Your task to perform on an android device: Go to wifi settings Image 0: 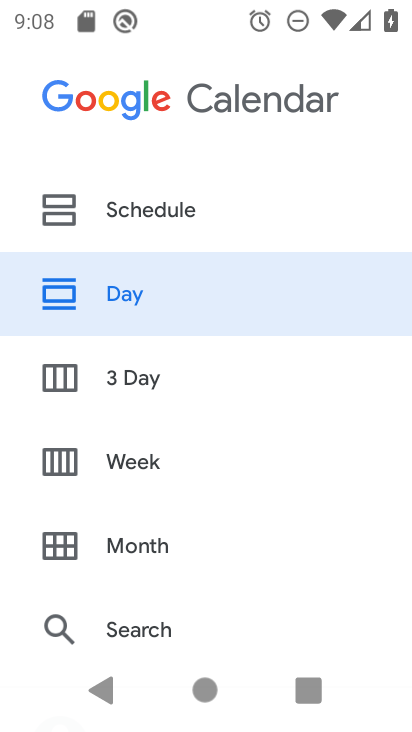
Step 0: press home button
Your task to perform on an android device: Go to wifi settings Image 1: 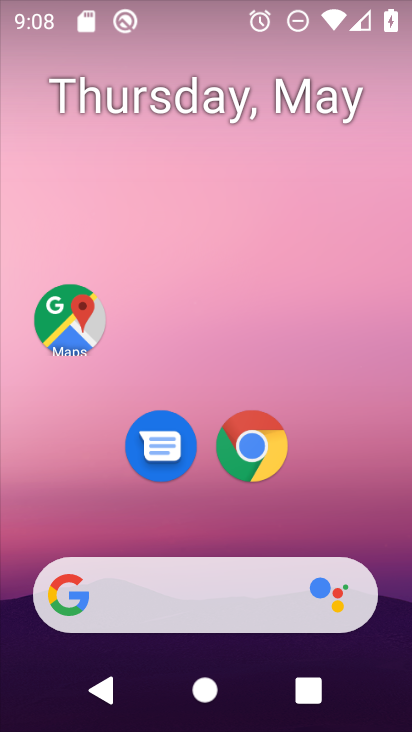
Step 1: drag from (379, 527) to (382, 149)
Your task to perform on an android device: Go to wifi settings Image 2: 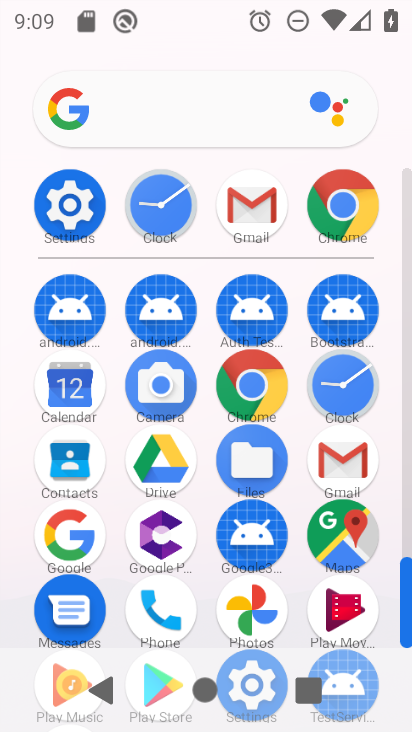
Step 2: drag from (295, 583) to (293, 357)
Your task to perform on an android device: Go to wifi settings Image 3: 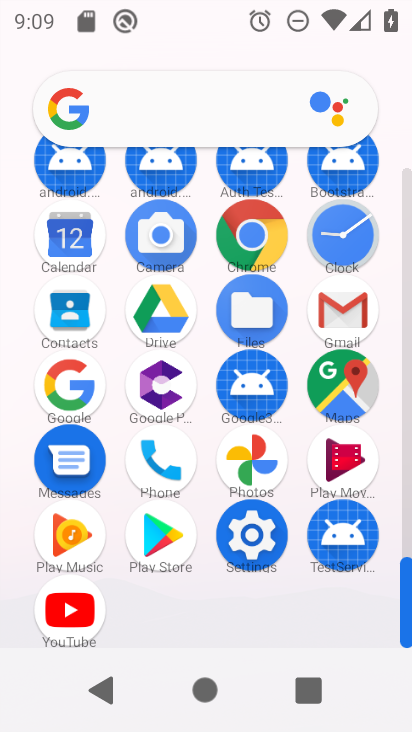
Step 3: click (260, 555)
Your task to perform on an android device: Go to wifi settings Image 4: 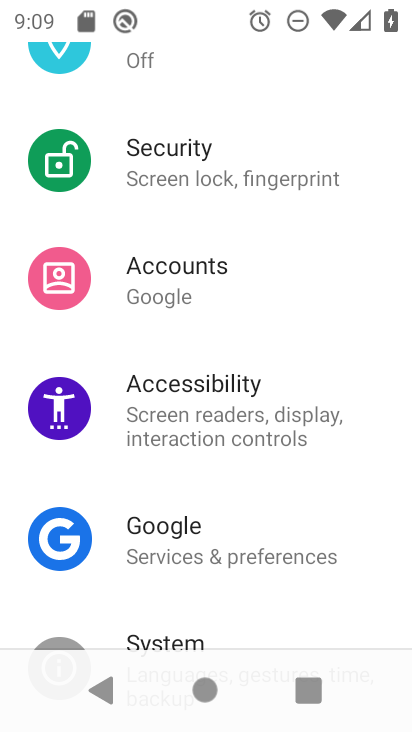
Step 4: drag from (257, 234) to (254, 544)
Your task to perform on an android device: Go to wifi settings Image 5: 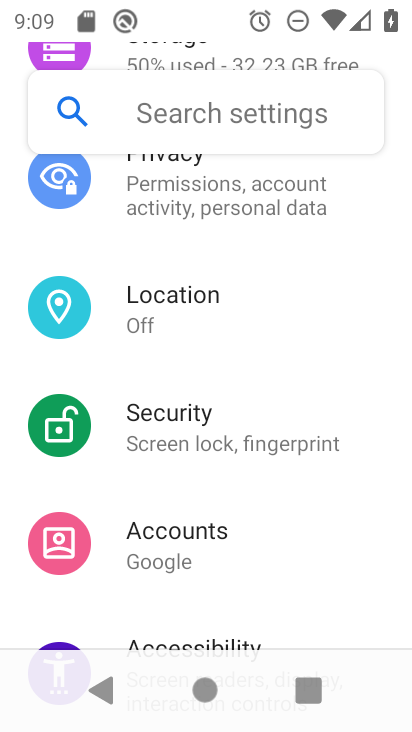
Step 5: drag from (241, 323) to (210, 638)
Your task to perform on an android device: Go to wifi settings Image 6: 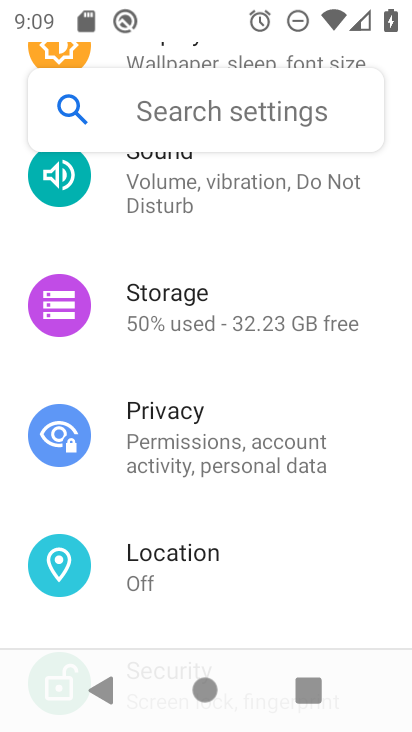
Step 6: drag from (267, 241) to (234, 506)
Your task to perform on an android device: Go to wifi settings Image 7: 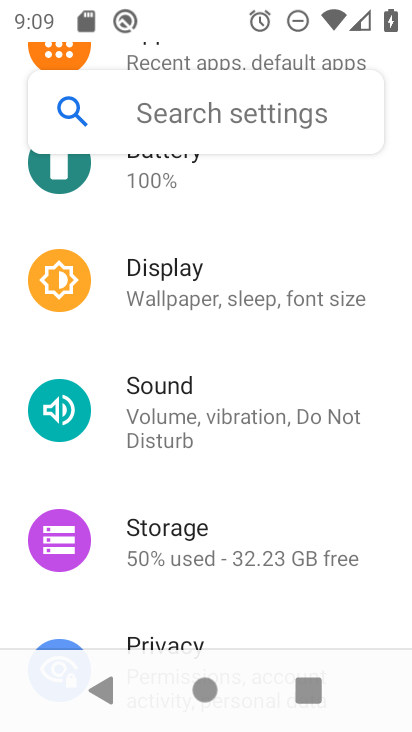
Step 7: drag from (265, 217) to (259, 577)
Your task to perform on an android device: Go to wifi settings Image 8: 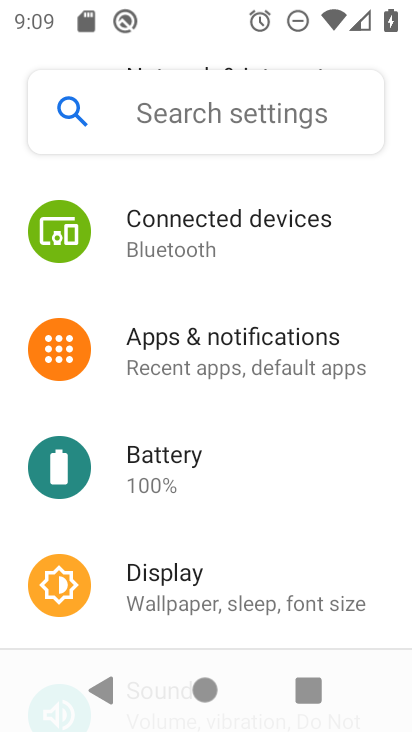
Step 8: drag from (260, 275) to (245, 563)
Your task to perform on an android device: Go to wifi settings Image 9: 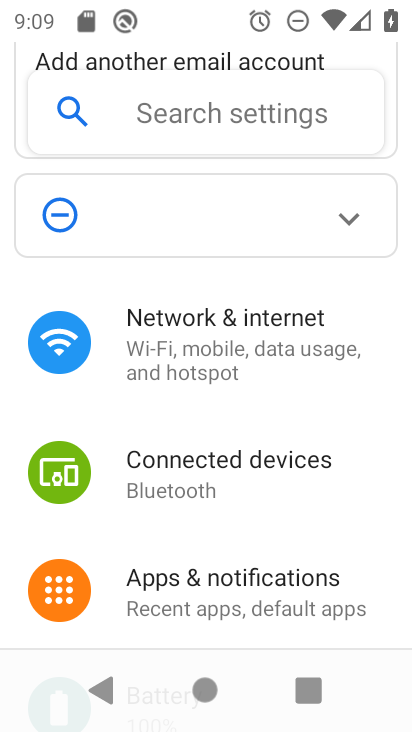
Step 9: click (210, 350)
Your task to perform on an android device: Go to wifi settings Image 10: 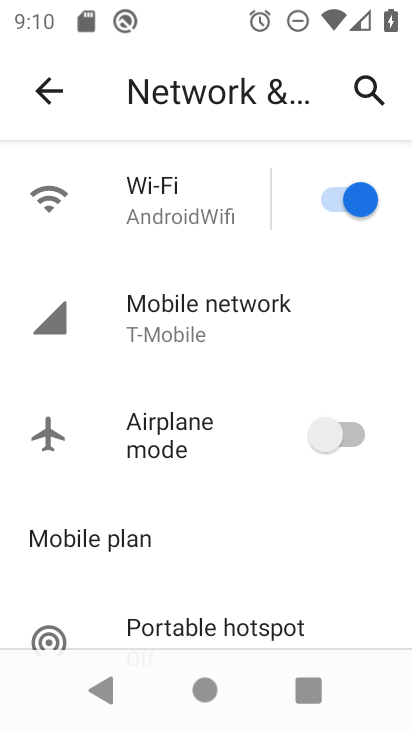
Step 10: click (199, 192)
Your task to perform on an android device: Go to wifi settings Image 11: 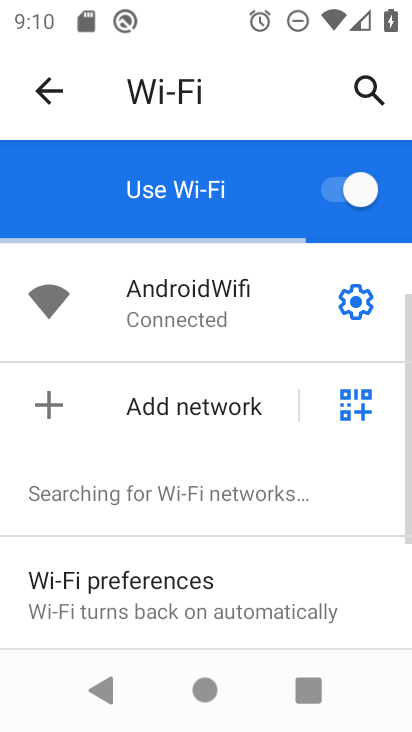
Step 11: click (350, 307)
Your task to perform on an android device: Go to wifi settings Image 12: 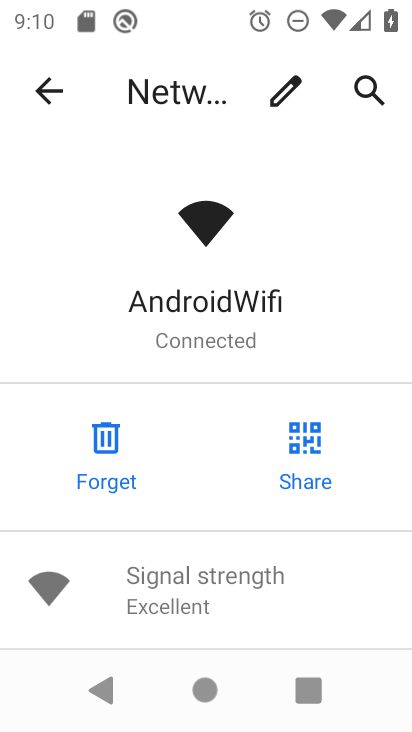
Step 12: task complete